Your task to perform on an android device: delete browsing data in the chrome app Image 0: 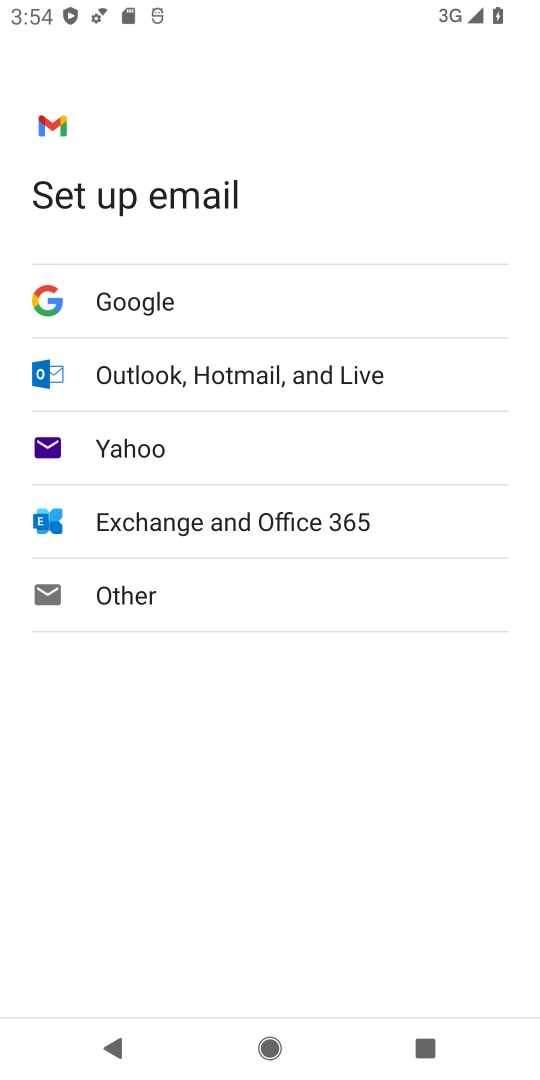
Step 0: press home button
Your task to perform on an android device: delete browsing data in the chrome app Image 1: 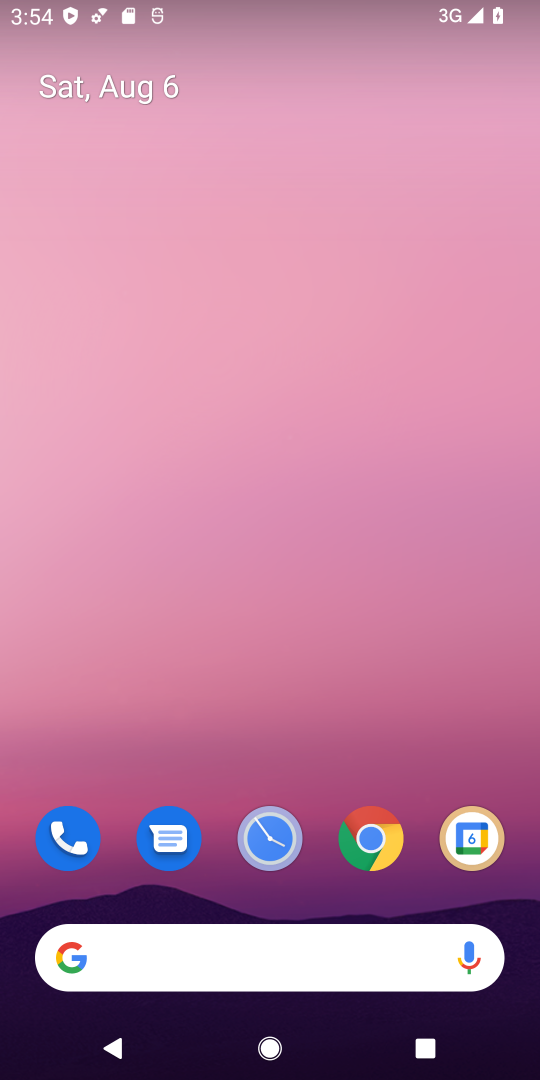
Step 1: drag from (337, 944) to (261, 168)
Your task to perform on an android device: delete browsing data in the chrome app Image 2: 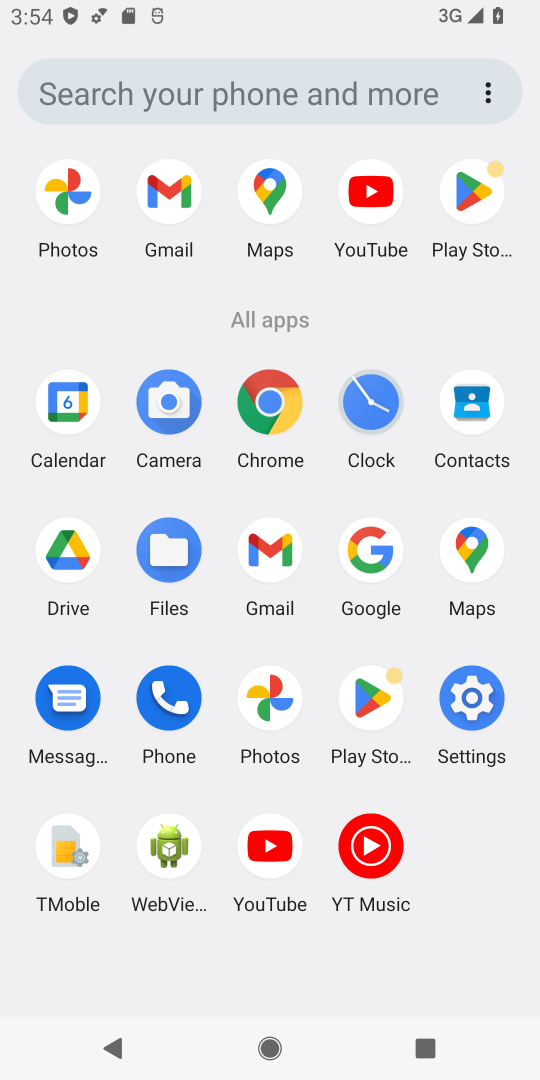
Step 2: click (262, 414)
Your task to perform on an android device: delete browsing data in the chrome app Image 3: 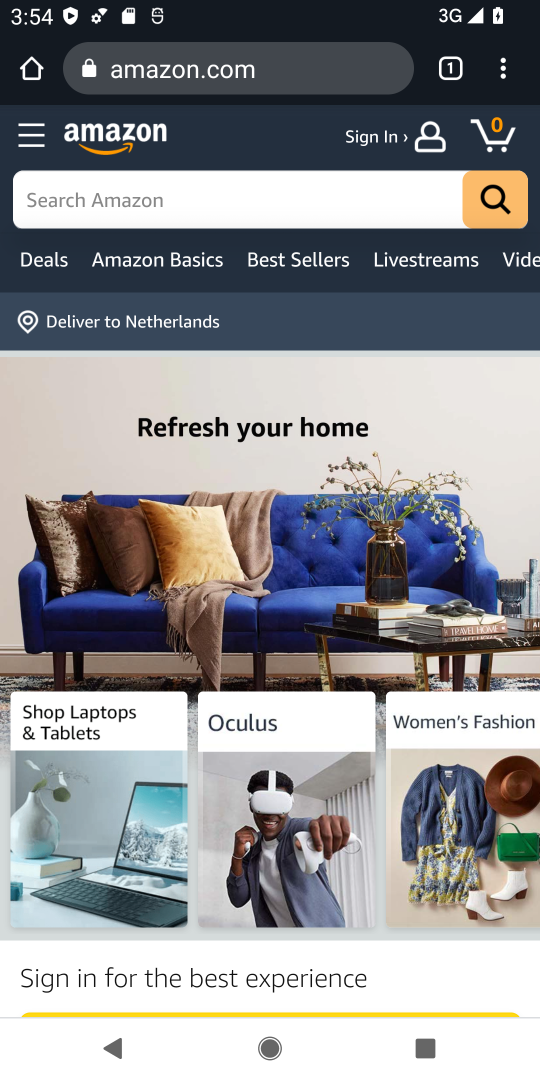
Step 3: click (499, 66)
Your task to perform on an android device: delete browsing data in the chrome app Image 4: 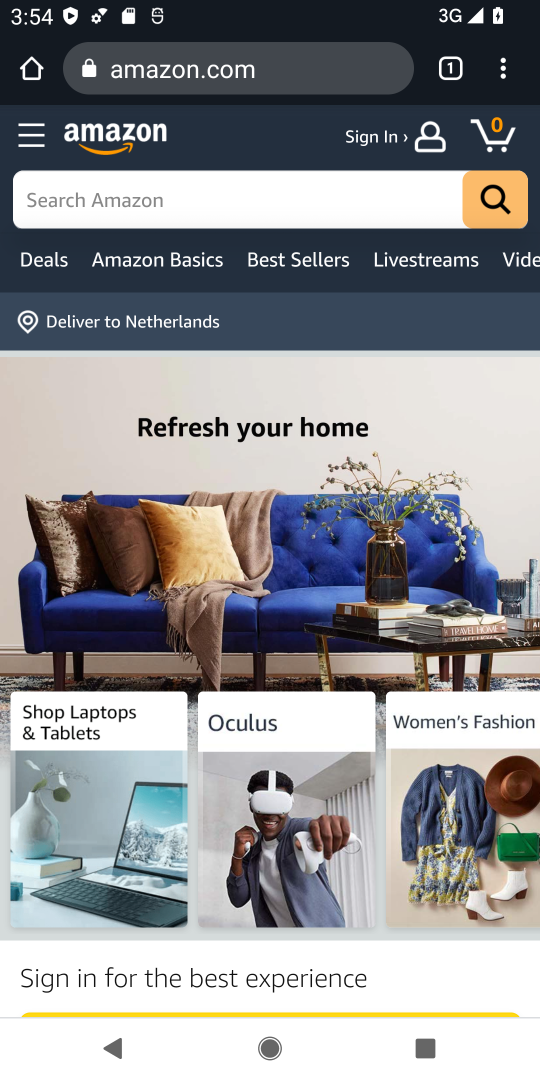
Step 4: click (499, 66)
Your task to perform on an android device: delete browsing data in the chrome app Image 5: 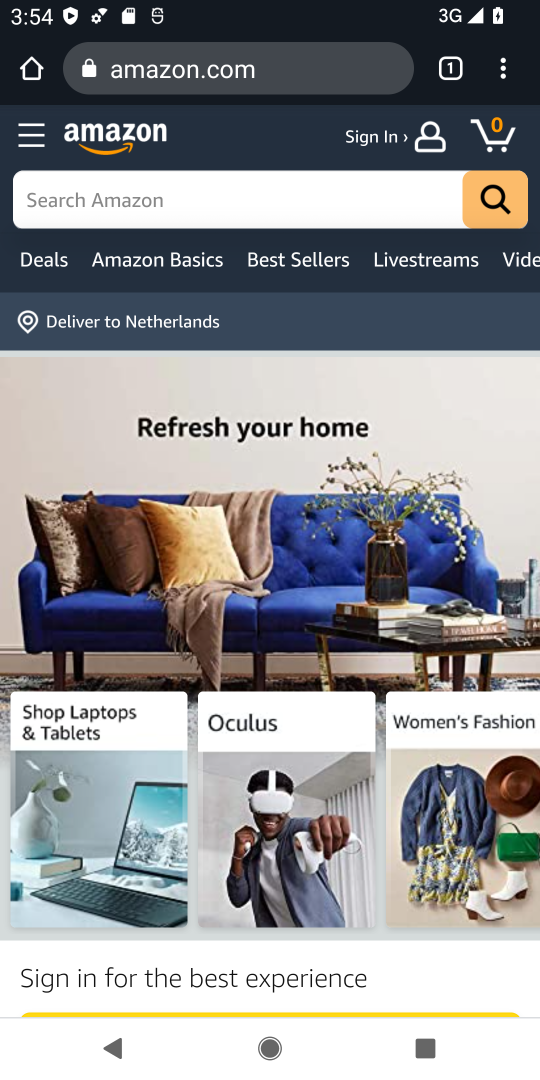
Step 5: drag from (504, 76) to (372, 280)
Your task to perform on an android device: delete browsing data in the chrome app Image 6: 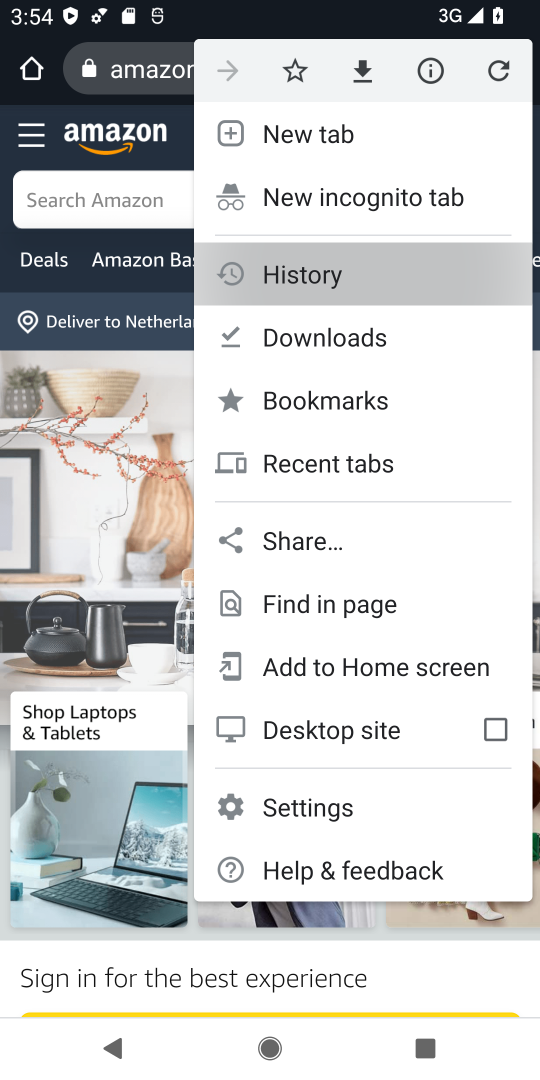
Step 6: click (372, 280)
Your task to perform on an android device: delete browsing data in the chrome app Image 7: 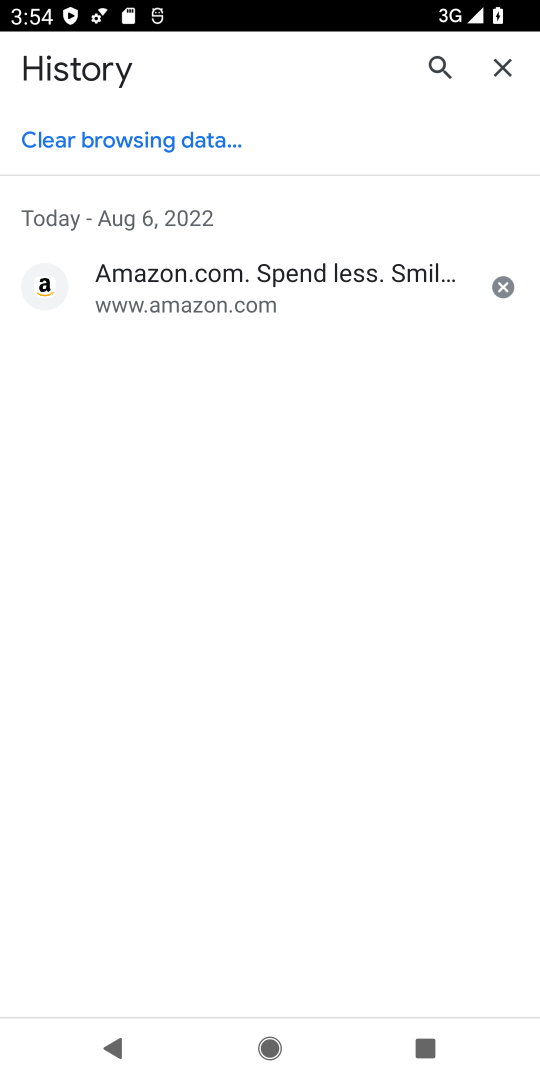
Step 7: click (126, 142)
Your task to perform on an android device: delete browsing data in the chrome app Image 8: 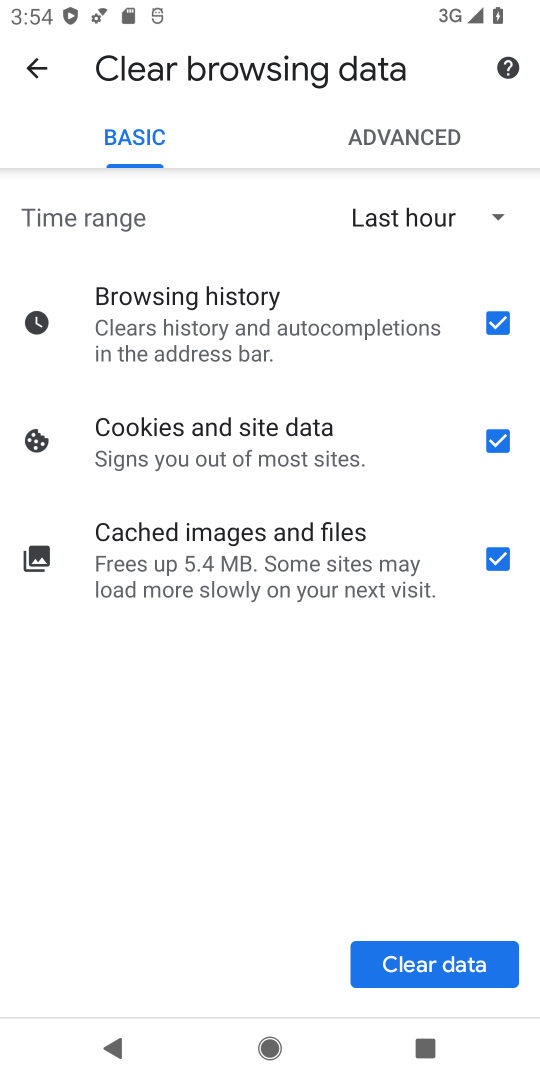
Step 8: click (394, 960)
Your task to perform on an android device: delete browsing data in the chrome app Image 9: 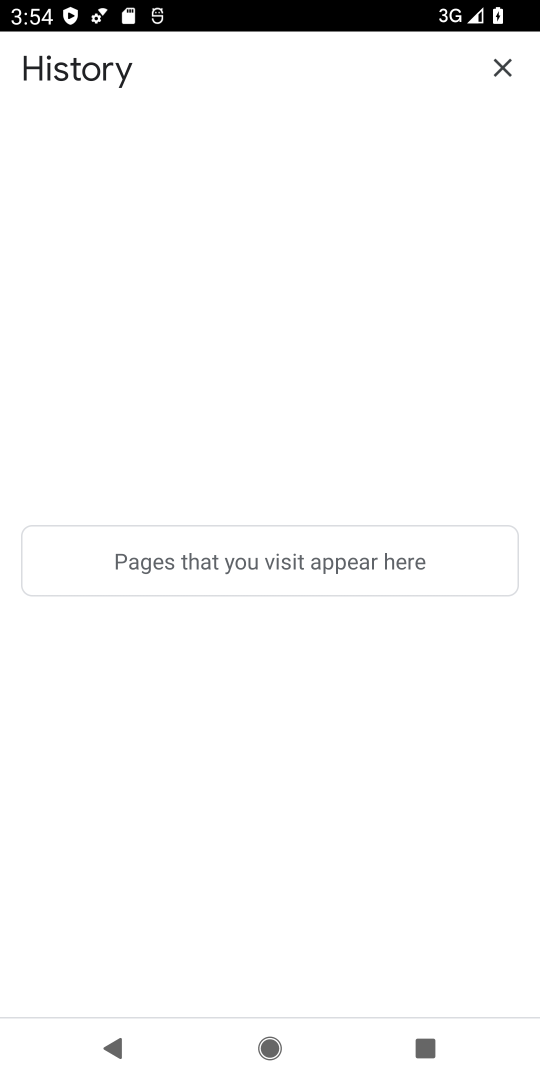
Step 9: task complete